Your task to perform on an android device: open sync settings in chrome Image 0: 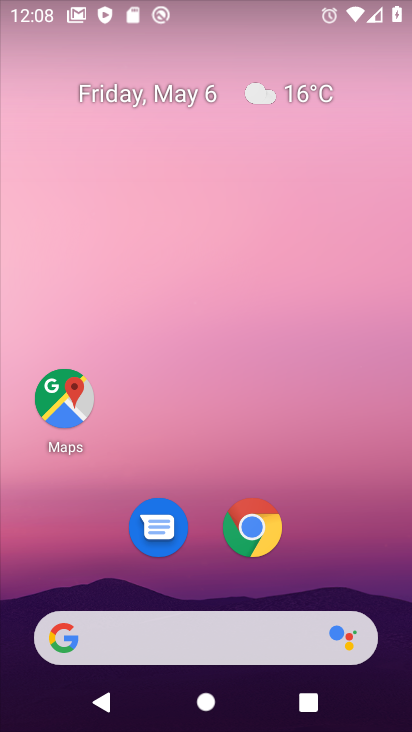
Step 0: drag from (333, 582) to (158, 200)
Your task to perform on an android device: open sync settings in chrome Image 1: 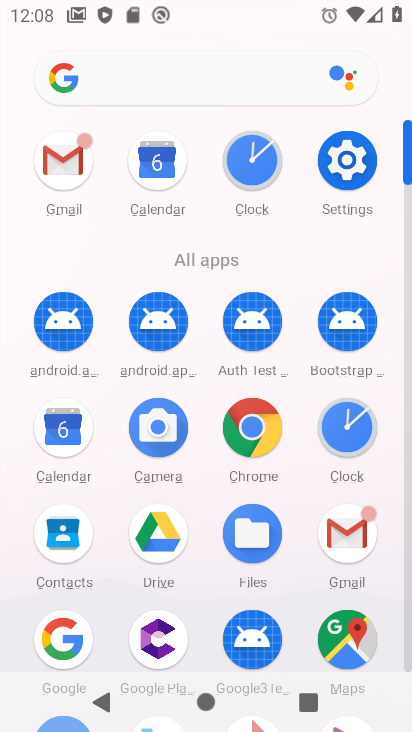
Step 1: click (256, 424)
Your task to perform on an android device: open sync settings in chrome Image 2: 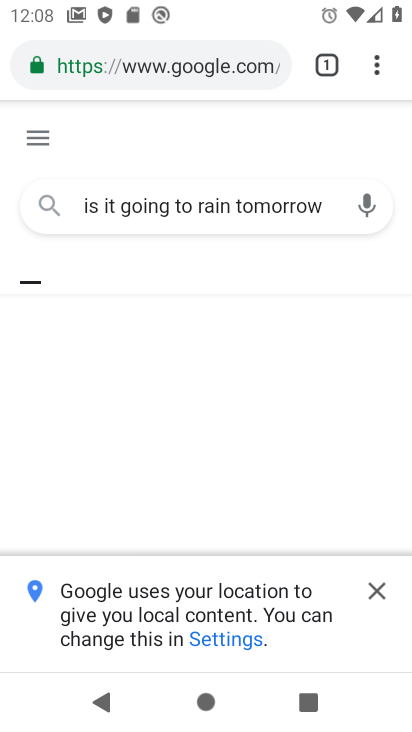
Step 2: drag from (378, 64) to (148, 575)
Your task to perform on an android device: open sync settings in chrome Image 3: 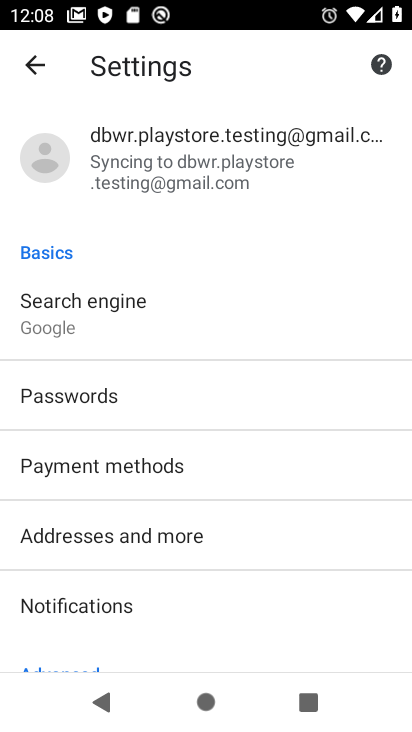
Step 3: drag from (195, 628) to (157, 192)
Your task to perform on an android device: open sync settings in chrome Image 4: 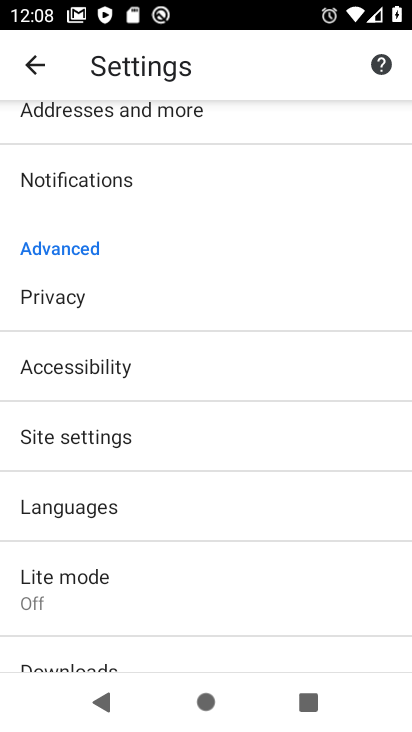
Step 4: click (61, 437)
Your task to perform on an android device: open sync settings in chrome Image 5: 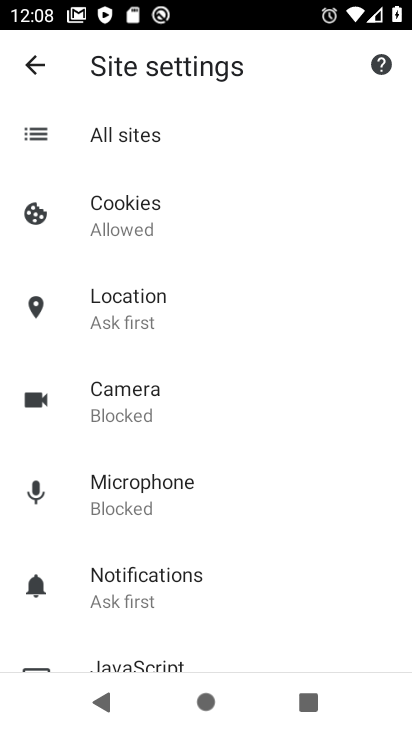
Step 5: drag from (207, 622) to (206, 276)
Your task to perform on an android device: open sync settings in chrome Image 6: 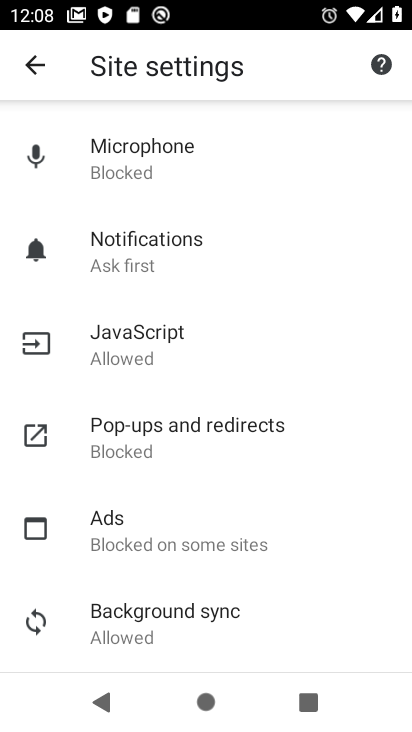
Step 6: click (132, 614)
Your task to perform on an android device: open sync settings in chrome Image 7: 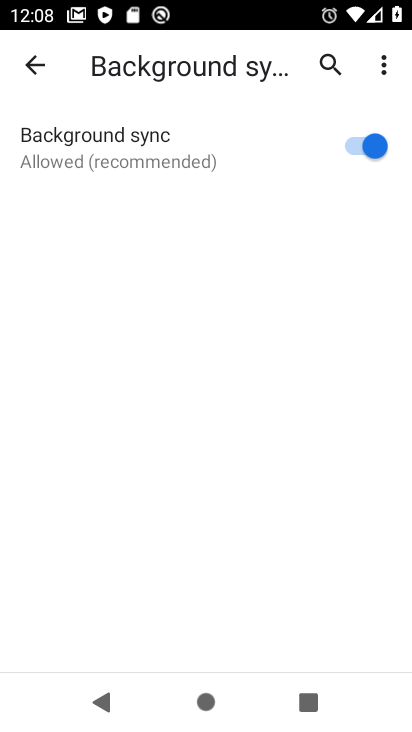
Step 7: task complete